Your task to perform on an android device: Show me the alarms in the clock app Image 0: 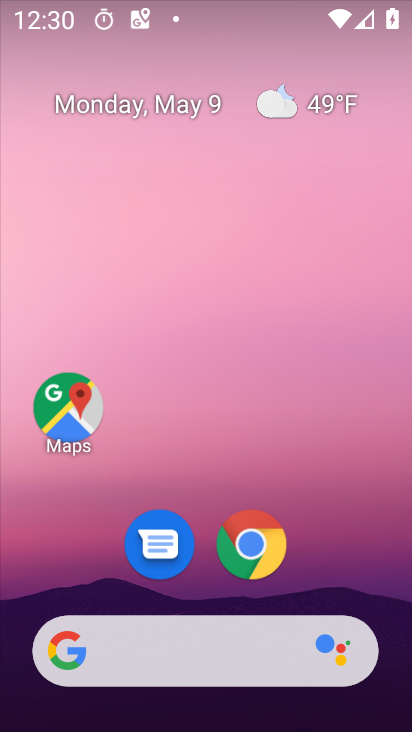
Step 0: drag from (315, 592) to (310, 29)
Your task to perform on an android device: Show me the alarms in the clock app Image 1: 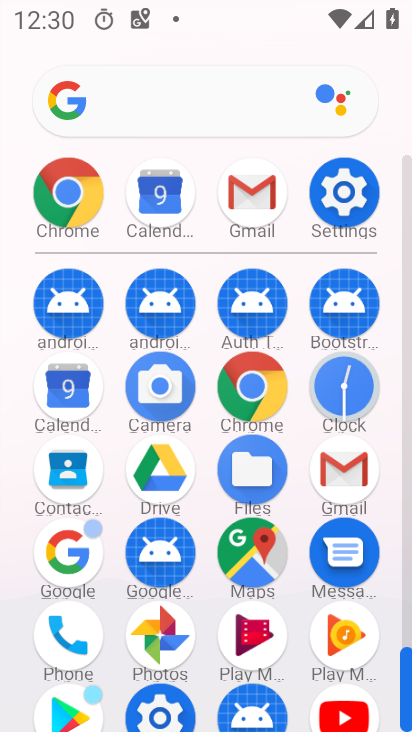
Step 1: click (353, 383)
Your task to perform on an android device: Show me the alarms in the clock app Image 2: 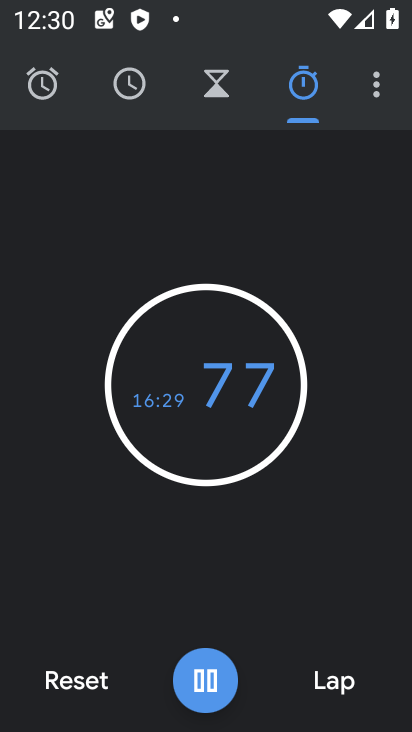
Step 2: click (46, 91)
Your task to perform on an android device: Show me the alarms in the clock app Image 3: 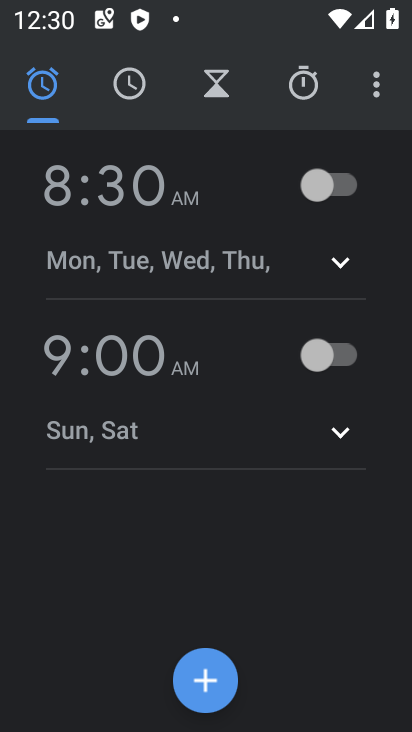
Step 3: task complete